Your task to perform on an android device: check google app version Image 0: 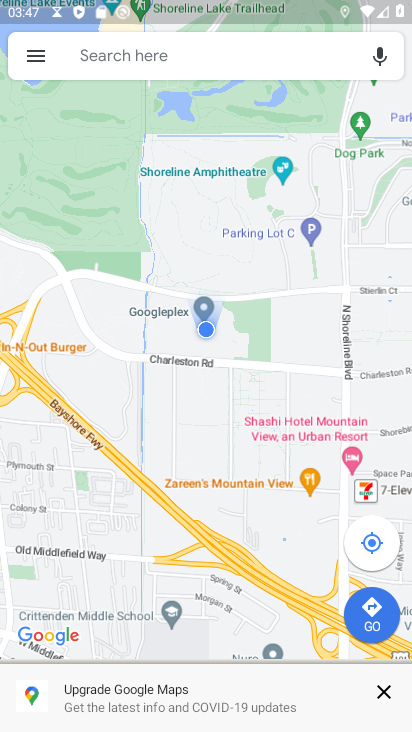
Step 0: press back button
Your task to perform on an android device: check google app version Image 1: 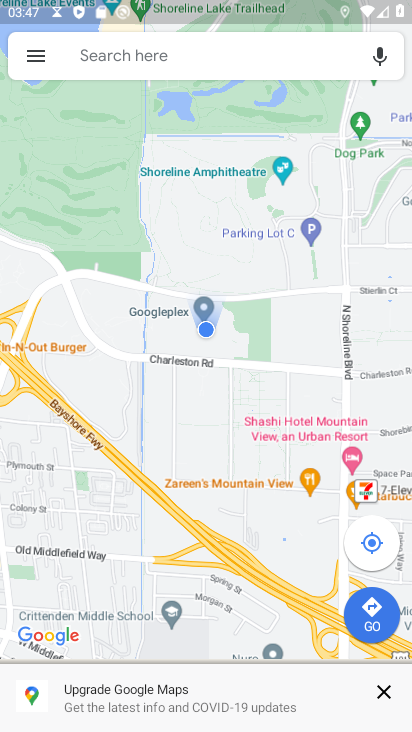
Step 1: press back button
Your task to perform on an android device: check google app version Image 2: 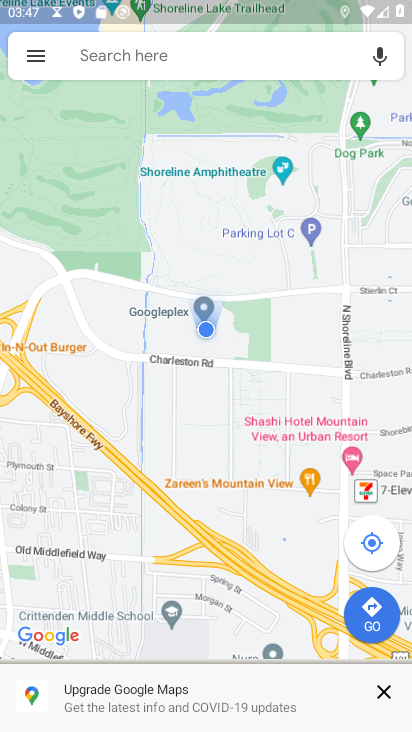
Step 2: press home button
Your task to perform on an android device: check google app version Image 3: 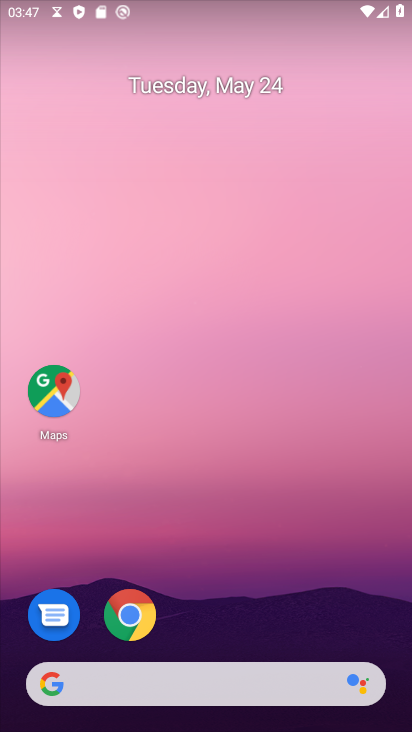
Step 3: drag from (240, 539) to (235, 46)
Your task to perform on an android device: check google app version Image 4: 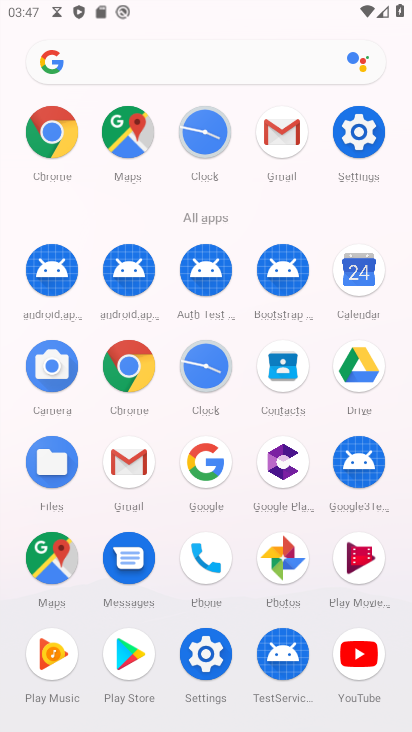
Step 4: click (202, 461)
Your task to perform on an android device: check google app version Image 5: 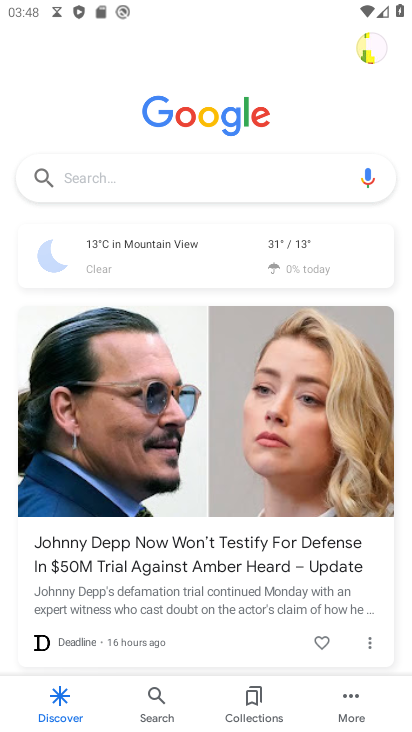
Step 5: click (353, 691)
Your task to perform on an android device: check google app version Image 6: 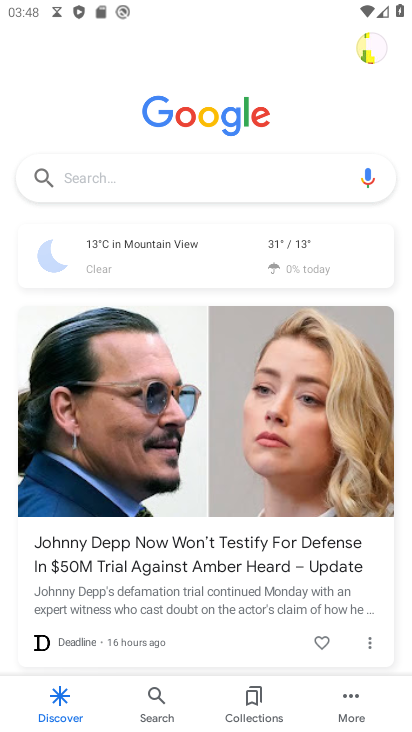
Step 6: drag from (352, 695) to (90, 336)
Your task to perform on an android device: check google app version Image 7: 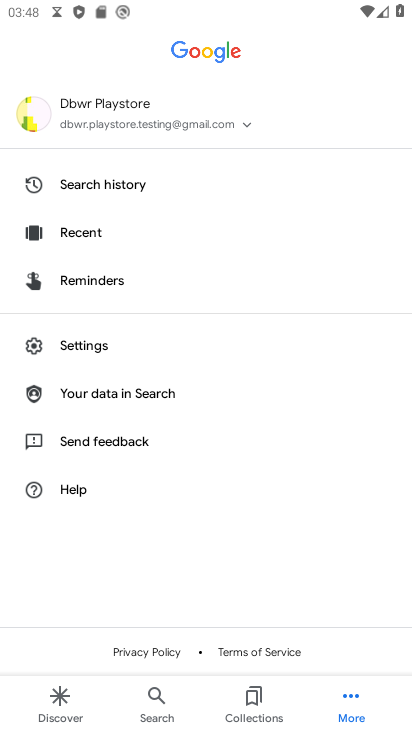
Step 7: click (87, 341)
Your task to perform on an android device: check google app version Image 8: 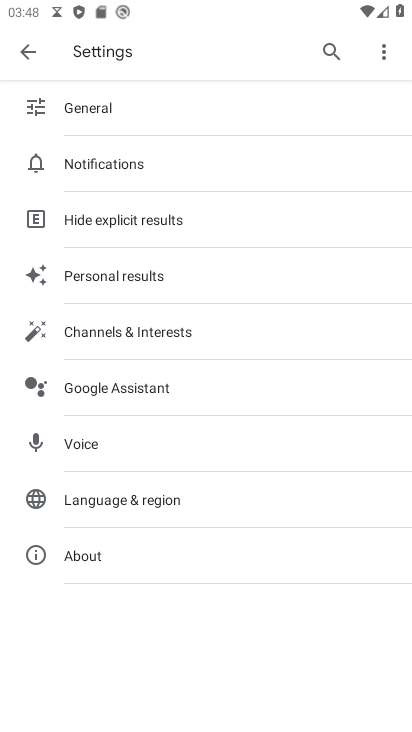
Step 8: click (100, 556)
Your task to perform on an android device: check google app version Image 9: 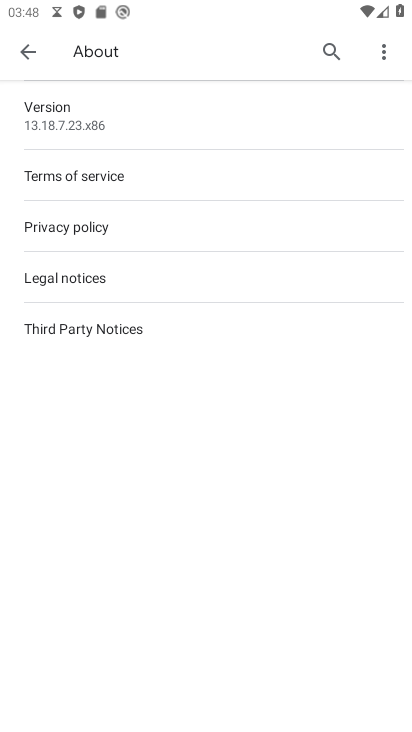
Step 9: task complete